Your task to perform on an android device: clear history in the chrome app Image 0: 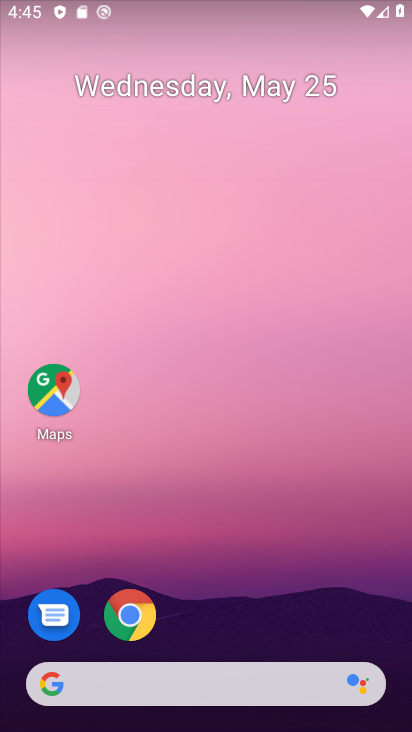
Step 0: drag from (234, 597) to (362, 105)
Your task to perform on an android device: clear history in the chrome app Image 1: 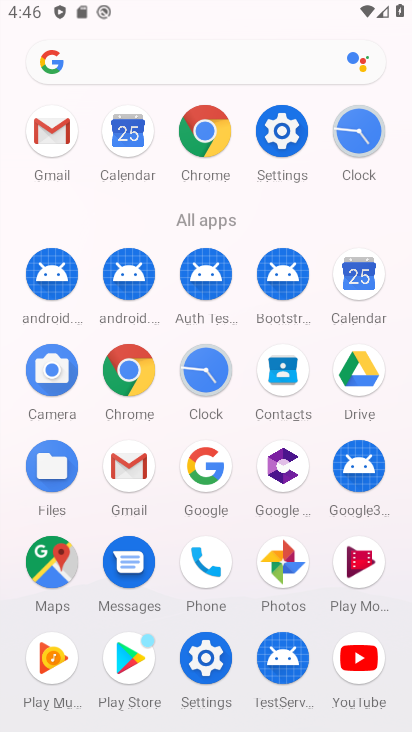
Step 1: click (151, 15)
Your task to perform on an android device: clear history in the chrome app Image 2: 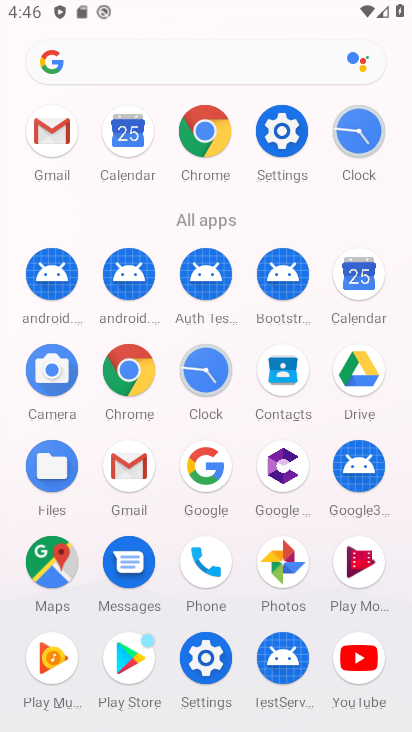
Step 2: click (186, 139)
Your task to perform on an android device: clear history in the chrome app Image 3: 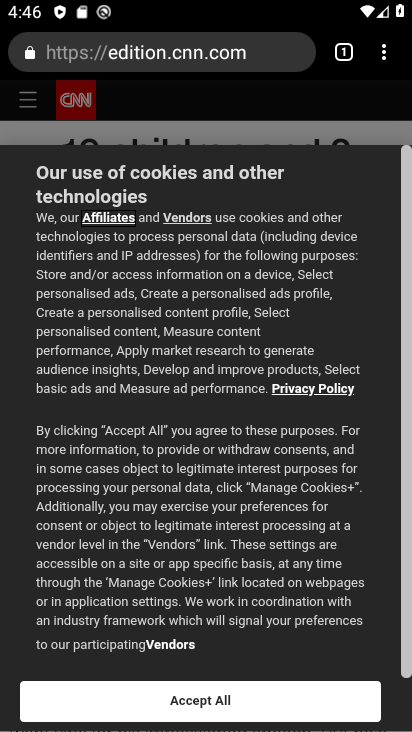
Step 3: drag from (369, 69) to (185, 308)
Your task to perform on an android device: clear history in the chrome app Image 4: 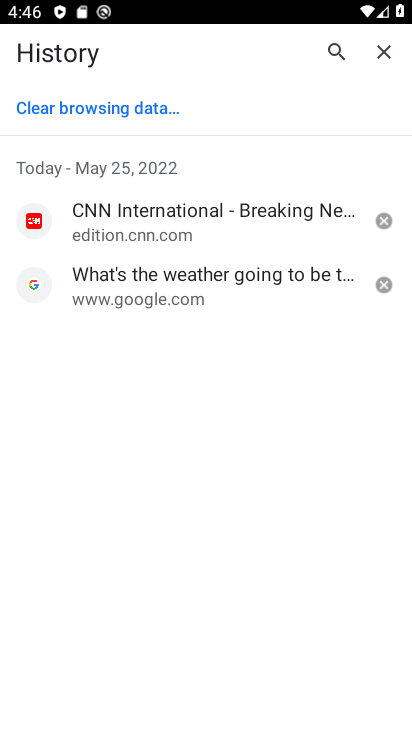
Step 4: click (378, 216)
Your task to perform on an android device: clear history in the chrome app Image 5: 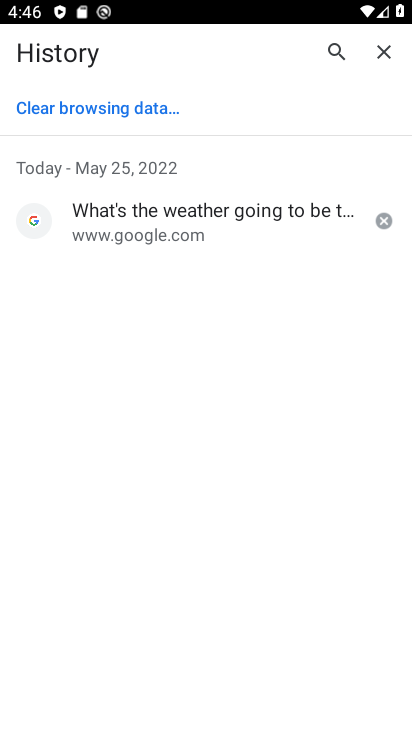
Step 5: click (378, 216)
Your task to perform on an android device: clear history in the chrome app Image 6: 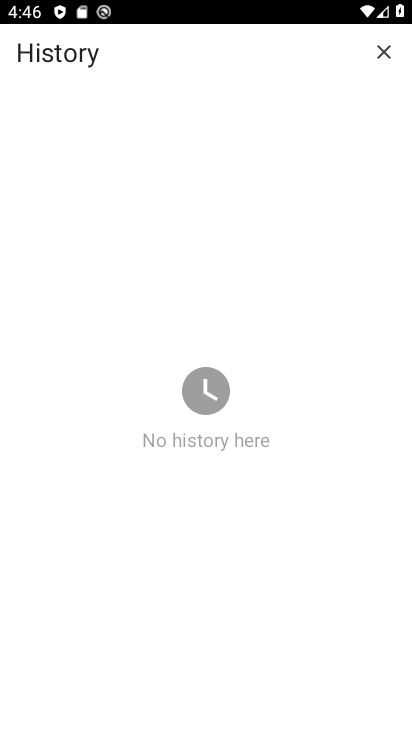
Step 6: task complete